Your task to perform on an android device: all mails in gmail Image 0: 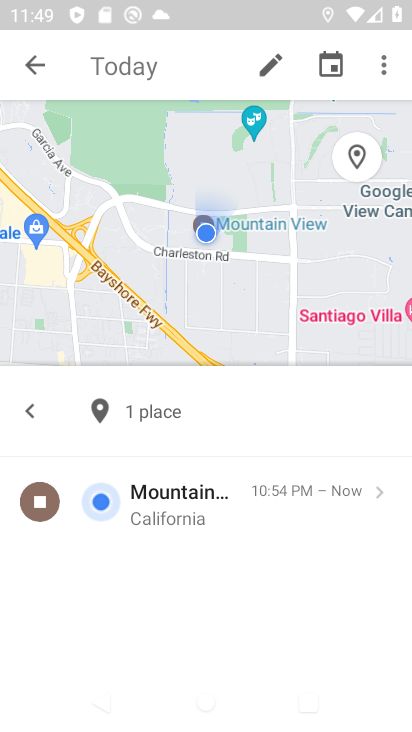
Step 0: press home button
Your task to perform on an android device: all mails in gmail Image 1: 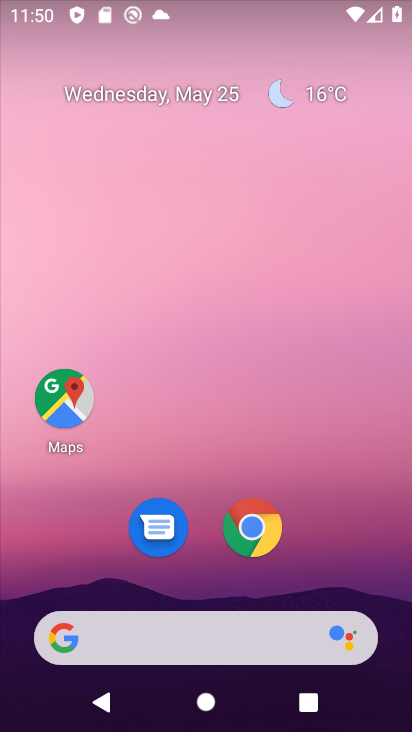
Step 1: drag from (354, 556) to (406, 91)
Your task to perform on an android device: all mails in gmail Image 2: 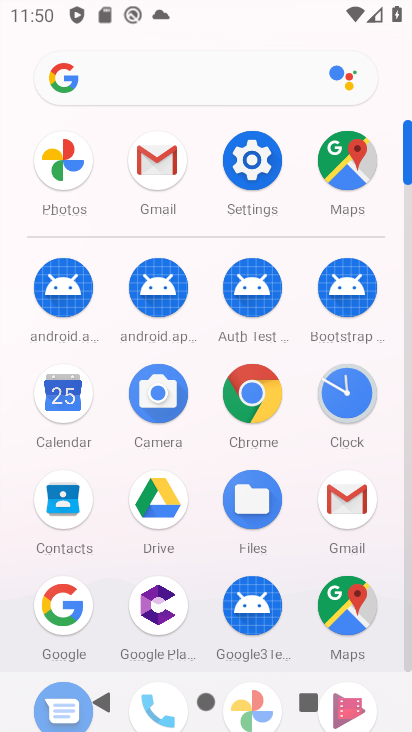
Step 2: click (149, 154)
Your task to perform on an android device: all mails in gmail Image 3: 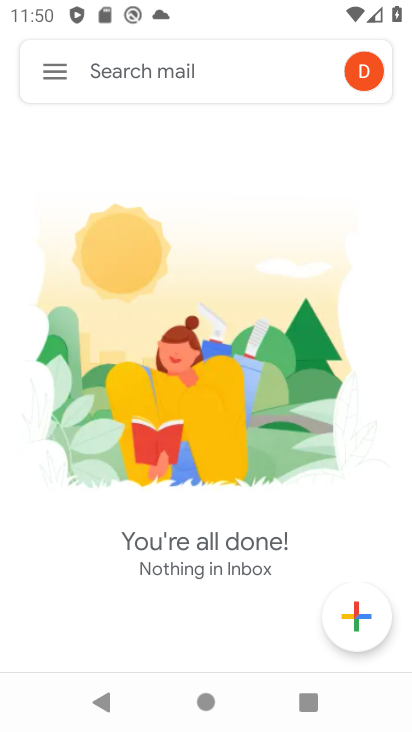
Step 3: click (46, 79)
Your task to perform on an android device: all mails in gmail Image 4: 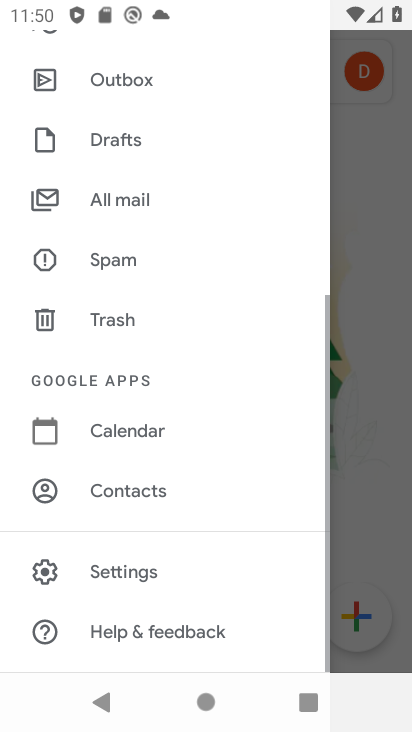
Step 4: click (121, 191)
Your task to perform on an android device: all mails in gmail Image 5: 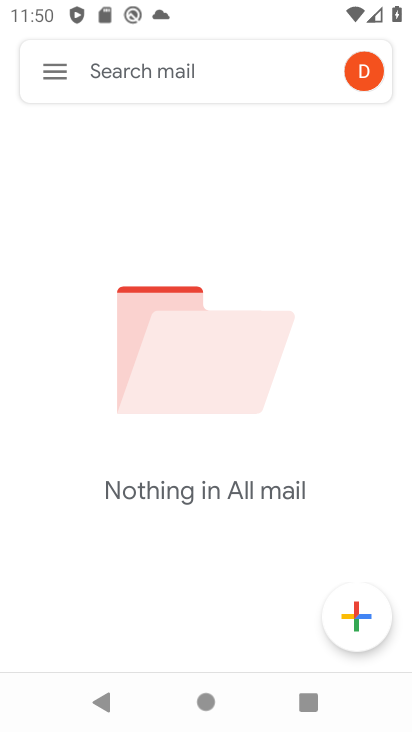
Step 5: task complete